Your task to perform on an android device: What's on my calendar tomorrow? Image 0: 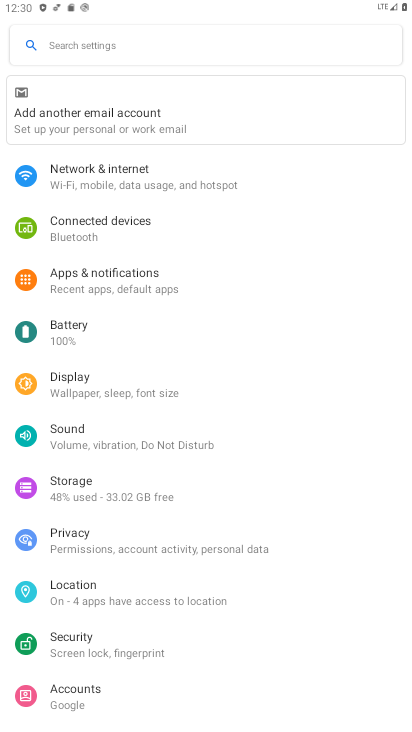
Step 0: press home button
Your task to perform on an android device: What's on my calendar tomorrow? Image 1: 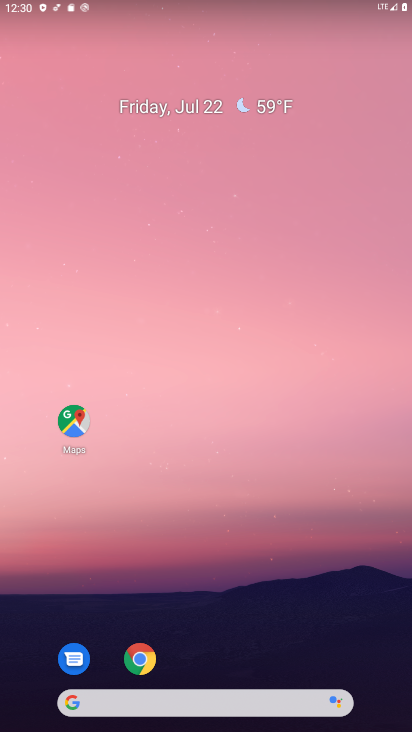
Step 1: drag from (200, 664) to (194, 256)
Your task to perform on an android device: What's on my calendar tomorrow? Image 2: 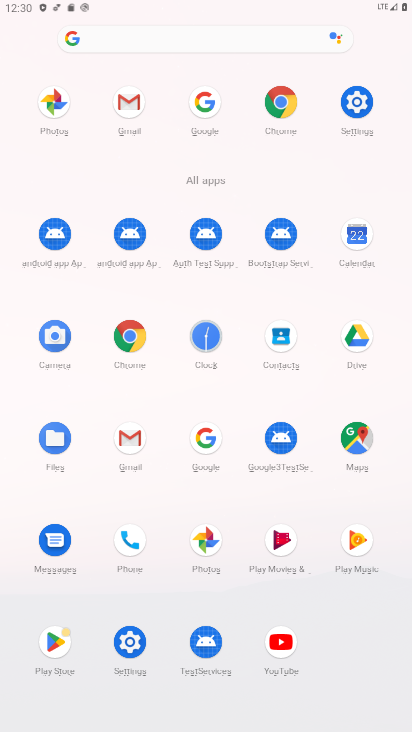
Step 2: click (344, 261)
Your task to perform on an android device: What's on my calendar tomorrow? Image 3: 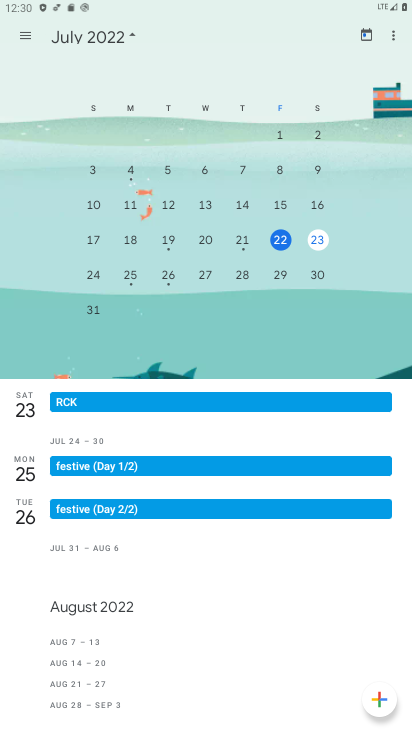
Step 3: click (313, 242)
Your task to perform on an android device: What's on my calendar tomorrow? Image 4: 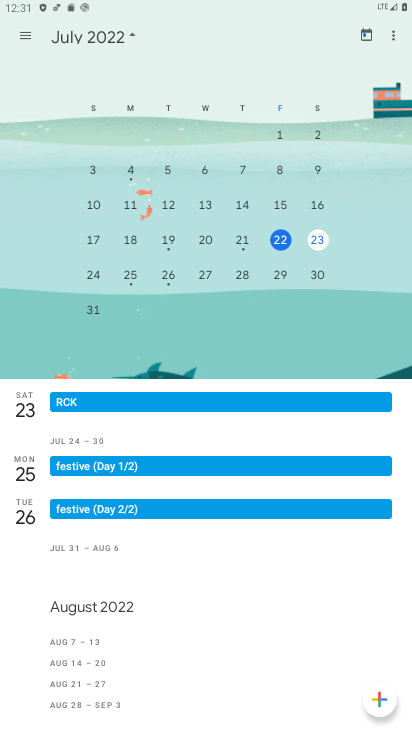
Step 4: task complete